Your task to perform on an android device: Open Google Chrome and open the bookmarks view Image 0: 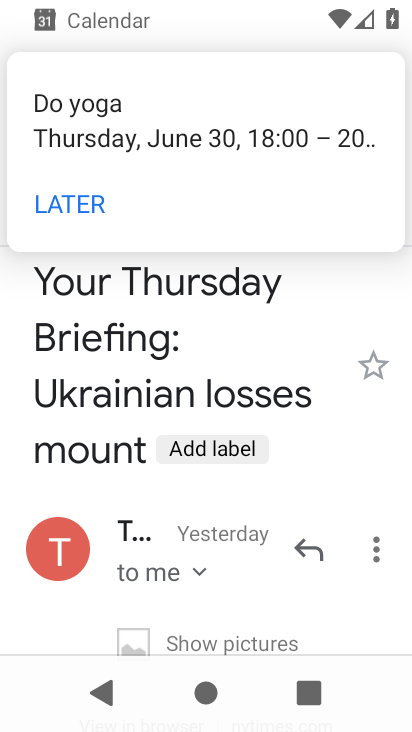
Step 0: press home button
Your task to perform on an android device: Open Google Chrome and open the bookmarks view Image 1: 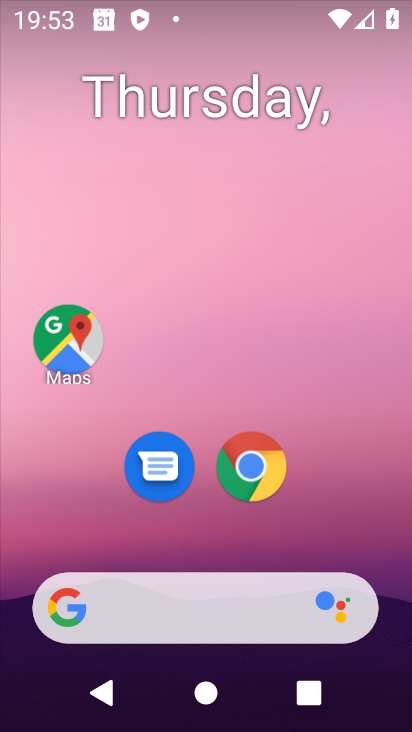
Step 1: click (259, 471)
Your task to perform on an android device: Open Google Chrome and open the bookmarks view Image 2: 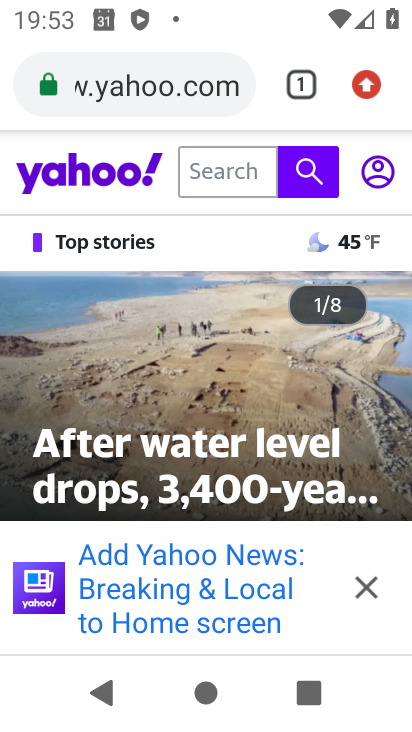
Step 2: click (369, 88)
Your task to perform on an android device: Open Google Chrome and open the bookmarks view Image 3: 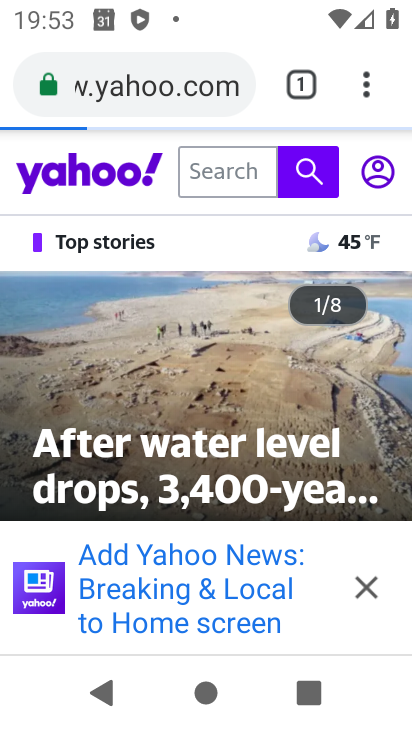
Step 3: click (369, 88)
Your task to perform on an android device: Open Google Chrome and open the bookmarks view Image 4: 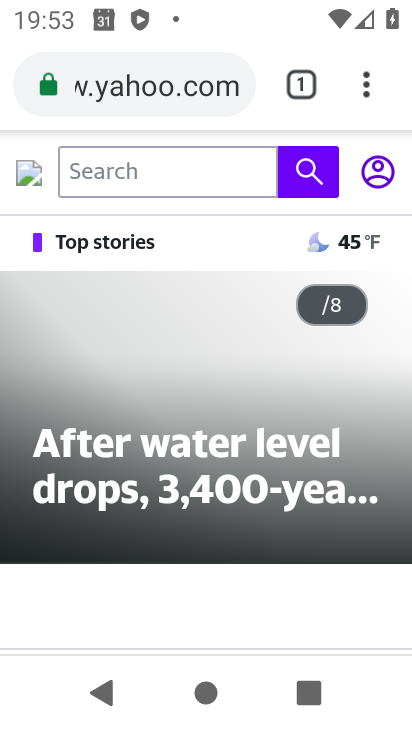
Step 4: task complete